Your task to perform on an android device: What is the recent news? Image 0: 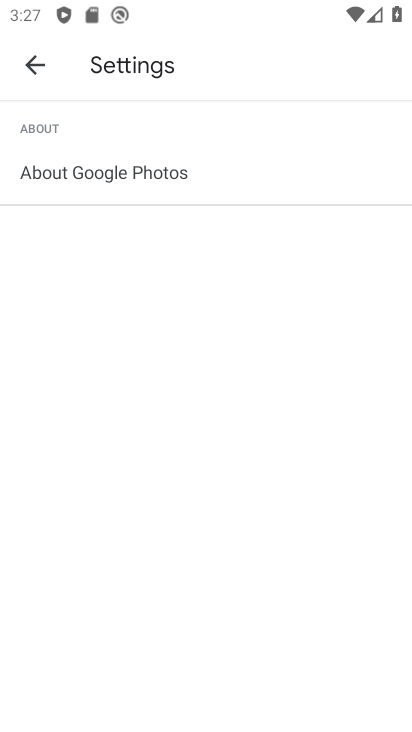
Step 0: press home button
Your task to perform on an android device: What is the recent news? Image 1: 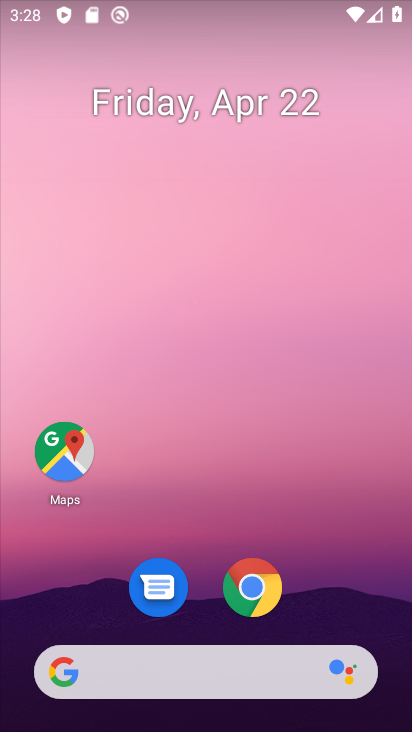
Step 1: task complete